Your task to perform on an android device: What's the weather going to be tomorrow? Image 0: 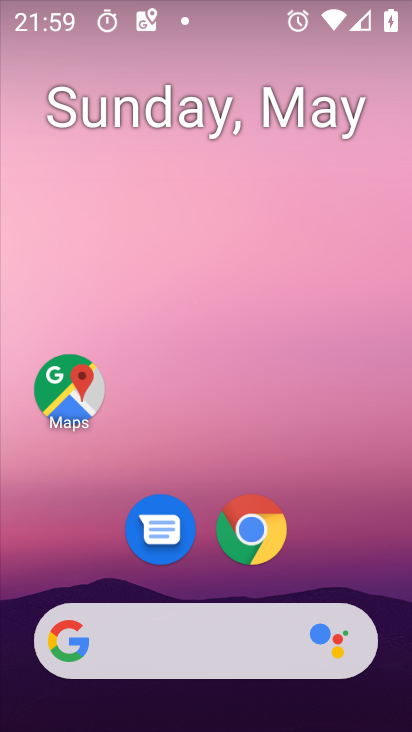
Step 0: click (121, 647)
Your task to perform on an android device: What's the weather going to be tomorrow? Image 1: 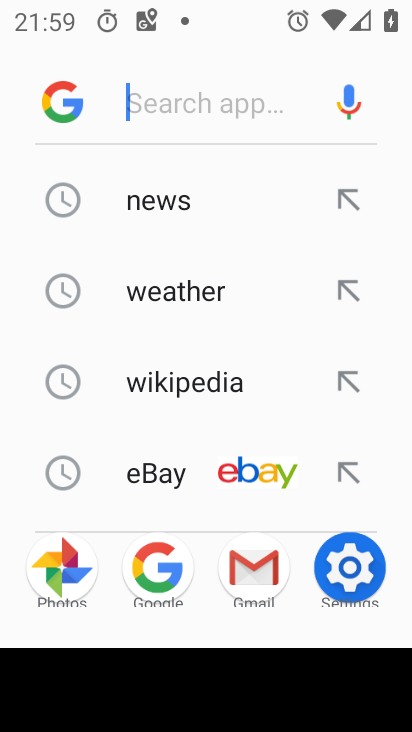
Step 1: click (166, 295)
Your task to perform on an android device: What's the weather going to be tomorrow? Image 2: 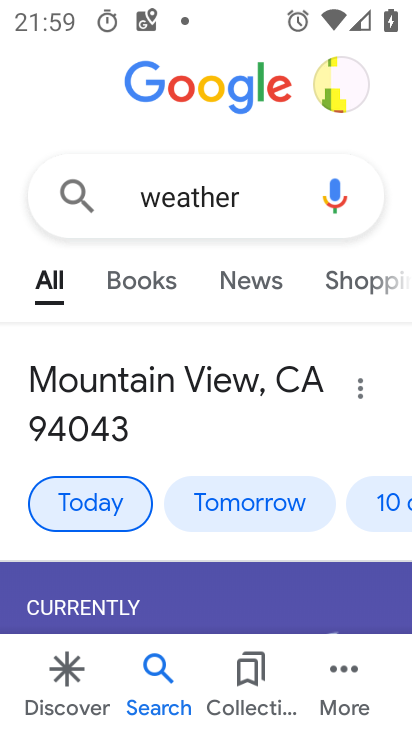
Step 2: click (228, 510)
Your task to perform on an android device: What's the weather going to be tomorrow? Image 3: 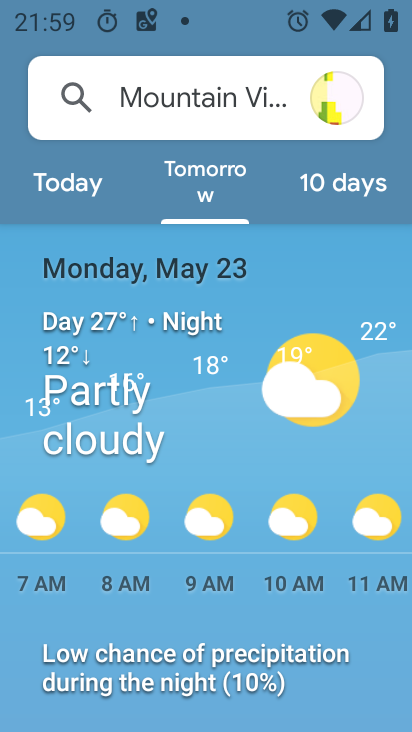
Step 3: task complete